Your task to perform on an android device: What's on my calendar tomorrow? Image 0: 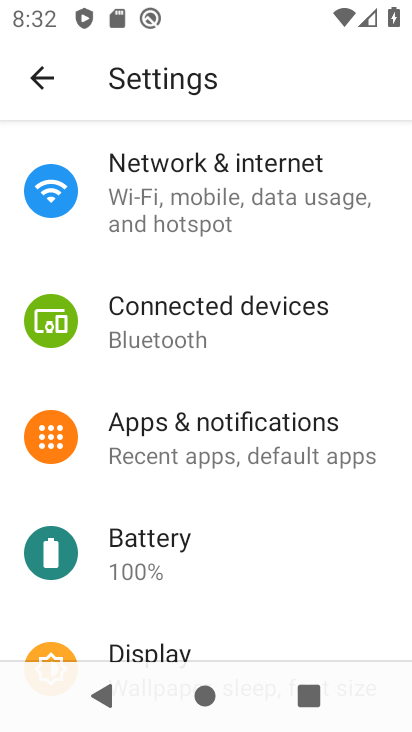
Step 0: press home button
Your task to perform on an android device: What's on my calendar tomorrow? Image 1: 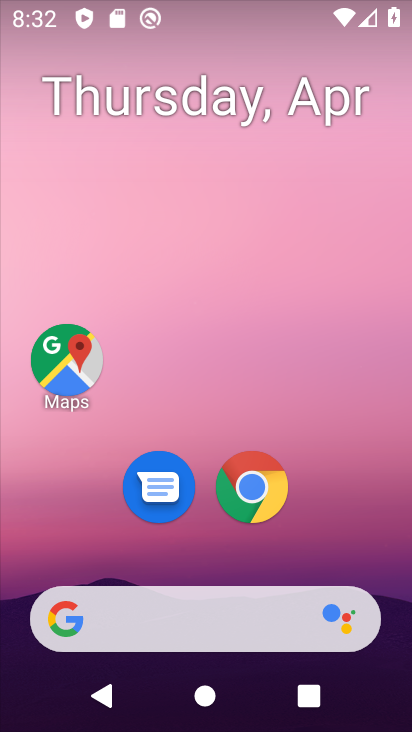
Step 1: drag from (208, 450) to (234, 97)
Your task to perform on an android device: What's on my calendar tomorrow? Image 2: 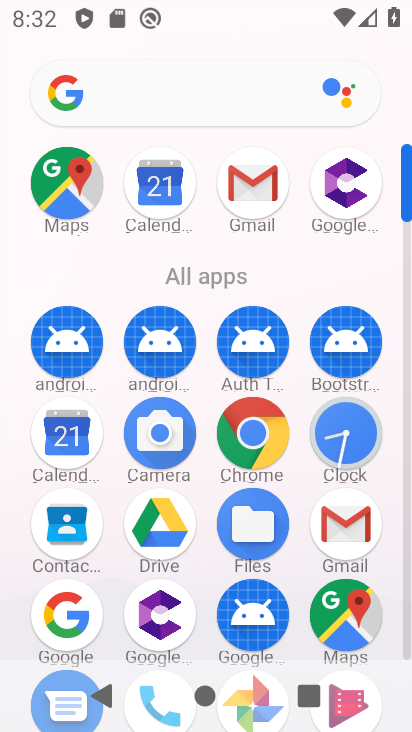
Step 2: click (143, 190)
Your task to perform on an android device: What's on my calendar tomorrow? Image 3: 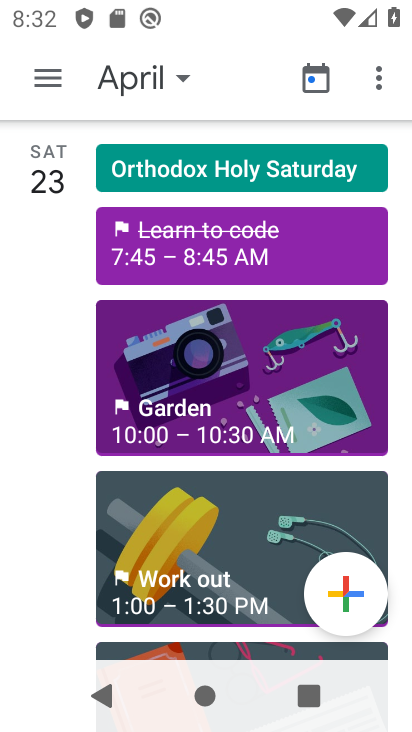
Step 3: click (161, 83)
Your task to perform on an android device: What's on my calendar tomorrow? Image 4: 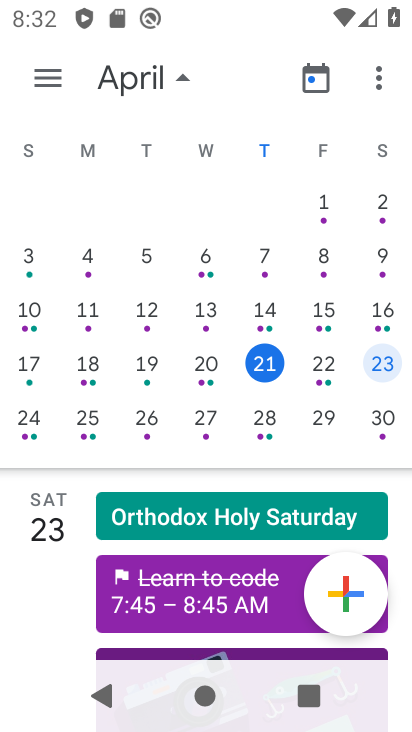
Step 4: click (327, 352)
Your task to perform on an android device: What's on my calendar tomorrow? Image 5: 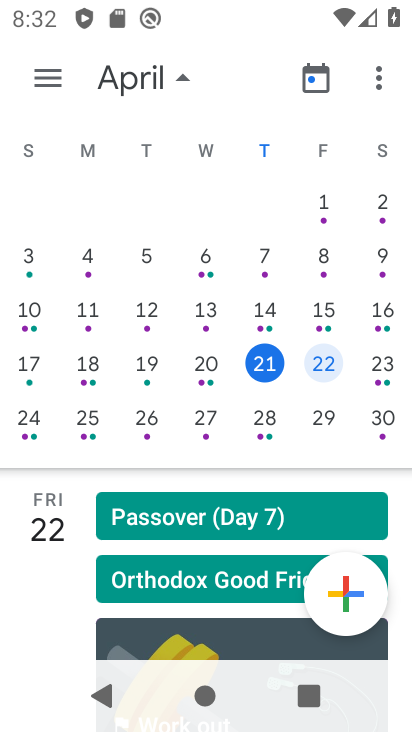
Step 5: click (327, 352)
Your task to perform on an android device: What's on my calendar tomorrow? Image 6: 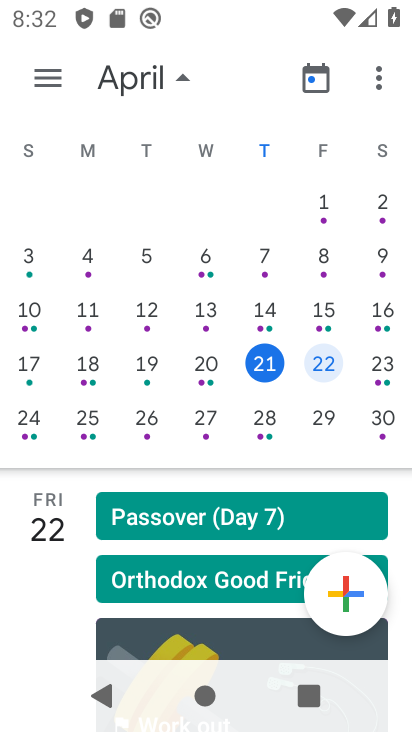
Step 6: click (320, 363)
Your task to perform on an android device: What's on my calendar tomorrow? Image 7: 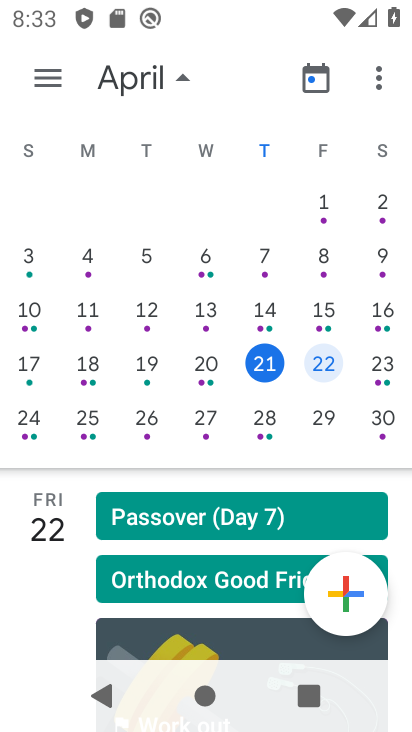
Step 7: click (320, 363)
Your task to perform on an android device: What's on my calendar tomorrow? Image 8: 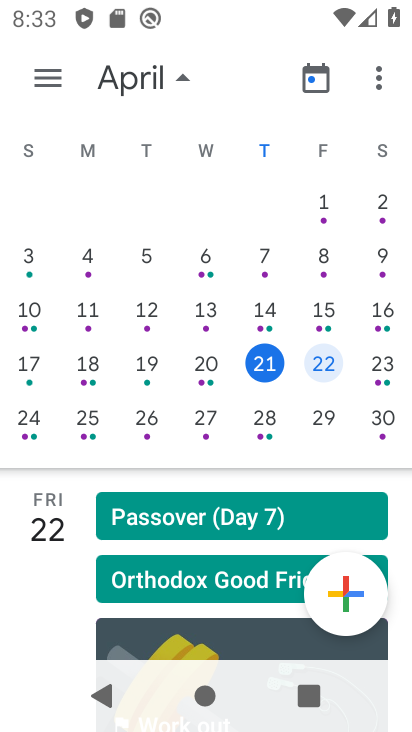
Step 8: click (320, 363)
Your task to perform on an android device: What's on my calendar tomorrow? Image 9: 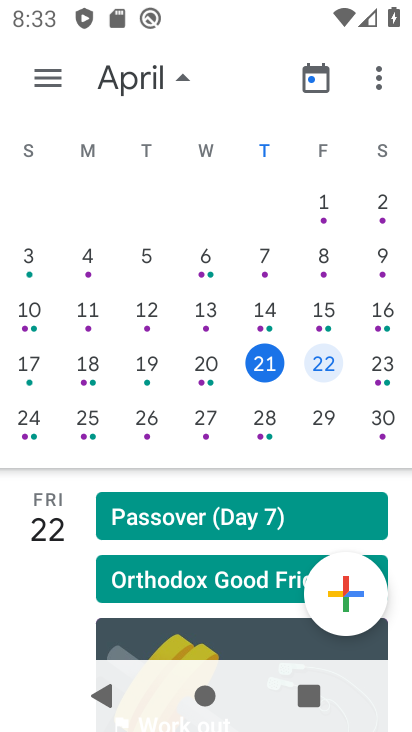
Step 9: task complete